Your task to perform on an android device: Open calendar and show me the first week of next month Image 0: 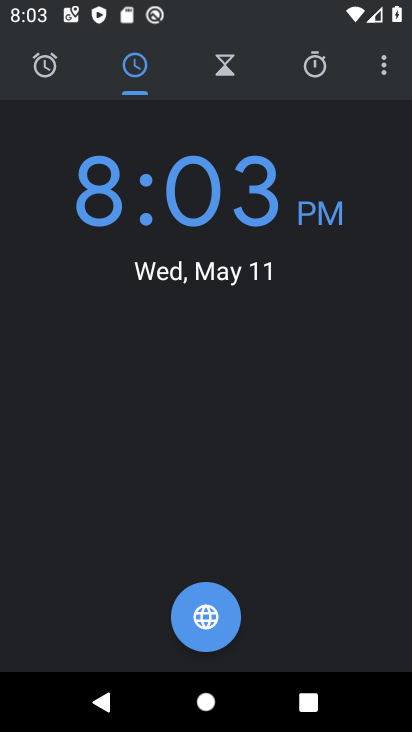
Step 0: press home button
Your task to perform on an android device: Open calendar and show me the first week of next month Image 1: 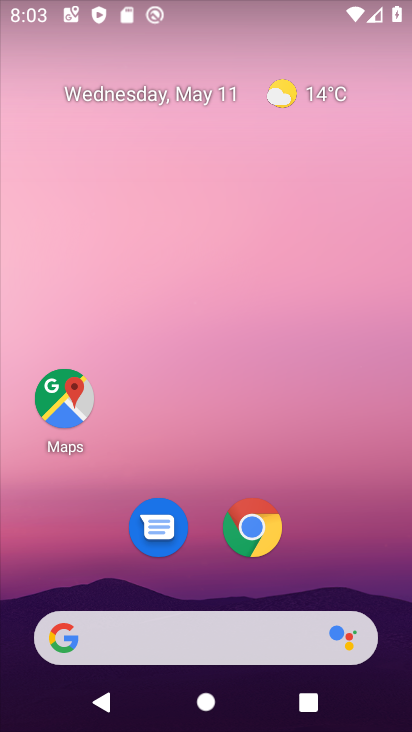
Step 1: drag from (339, 586) to (326, 10)
Your task to perform on an android device: Open calendar and show me the first week of next month Image 2: 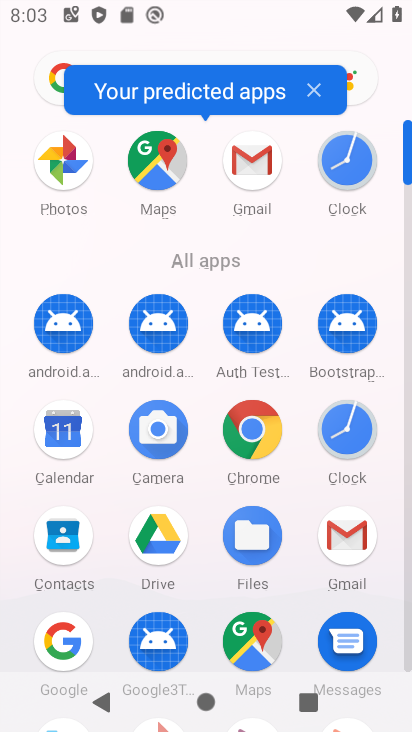
Step 2: click (79, 426)
Your task to perform on an android device: Open calendar and show me the first week of next month Image 3: 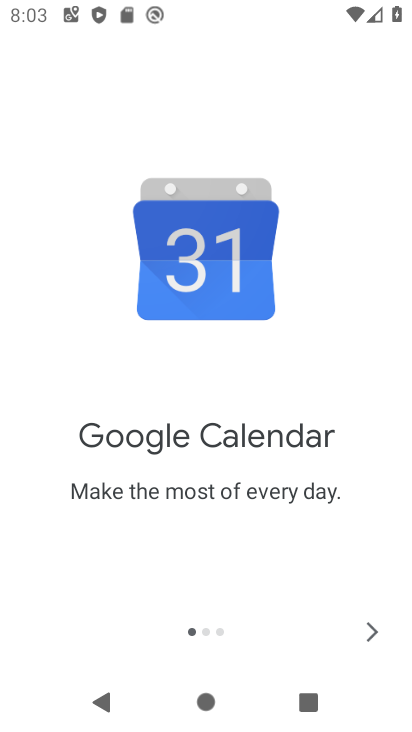
Step 3: click (381, 633)
Your task to perform on an android device: Open calendar and show me the first week of next month Image 4: 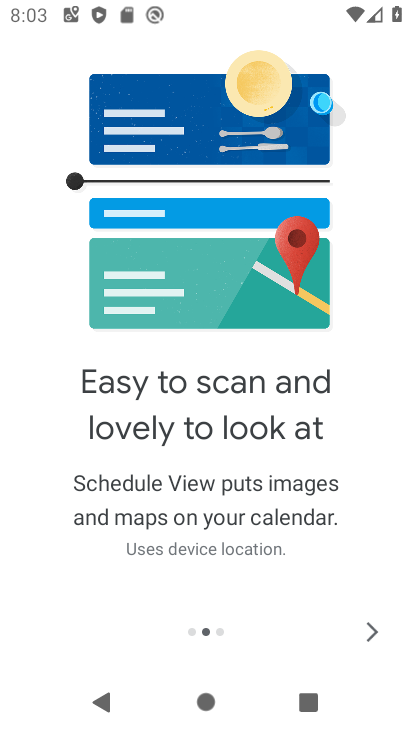
Step 4: click (375, 634)
Your task to perform on an android device: Open calendar and show me the first week of next month Image 5: 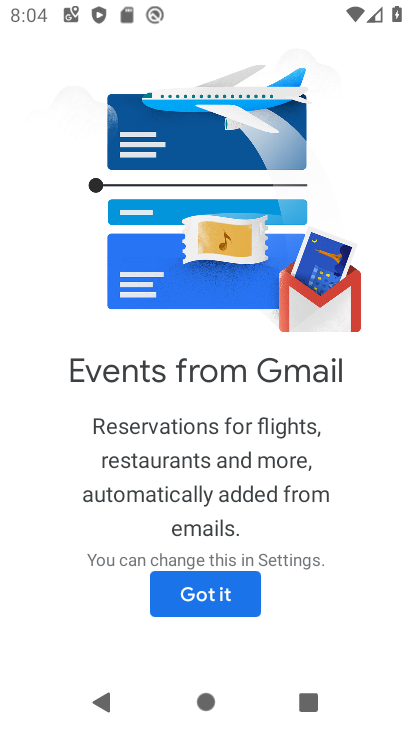
Step 5: click (210, 600)
Your task to perform on an android device: Open calendar and show me the first week of next month Image 6: 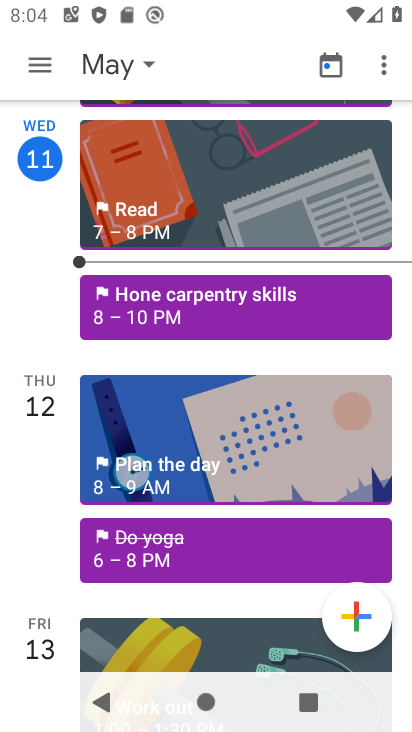
Step 6: click (147, 66)
Your task to perform on an android device: Open calendar and show me the first week of next month Image 7: 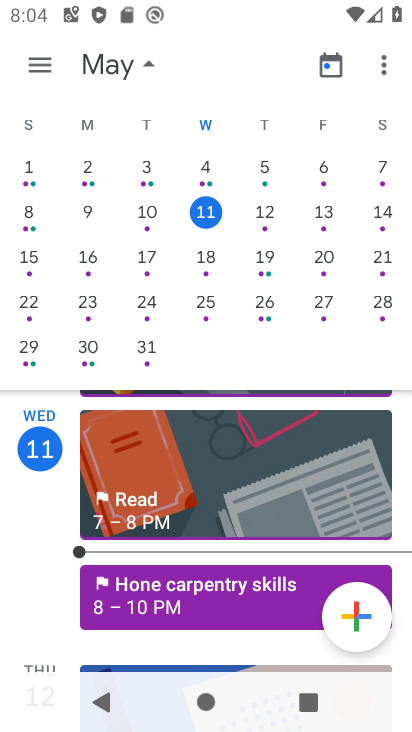
Step 7: drag from (302, 246) to (3, 302)
Your task to perform on an android device: Open calendar and show me the first week of next month Image 8: 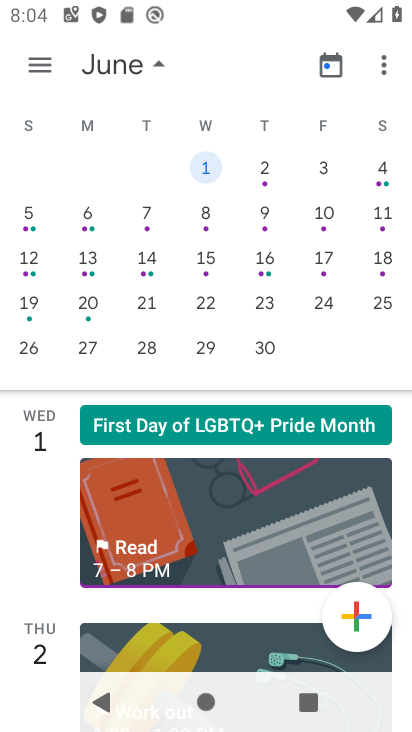
Step 8: click (36, 67)
Your task to perform on an android device: Open calendar and show me the first week of next month Image 9: 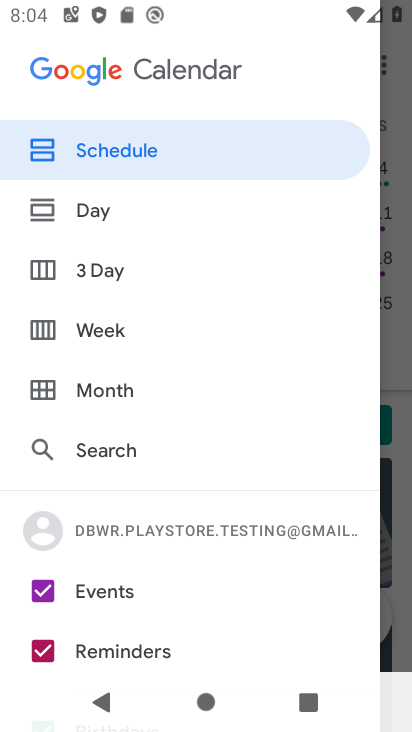
Step 9: click (61, 352)
Your task to perform on an android device: Open calendar and show me the first week of next month Image 10: 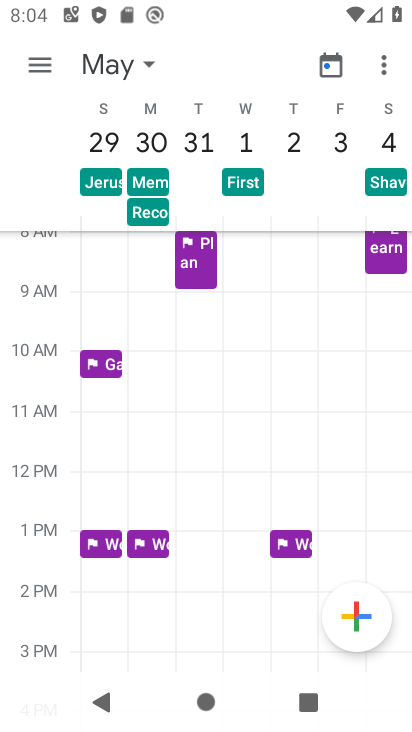
Step 10: task complete